Your task to perform on an android device: star an email in the gmail app Image 0: 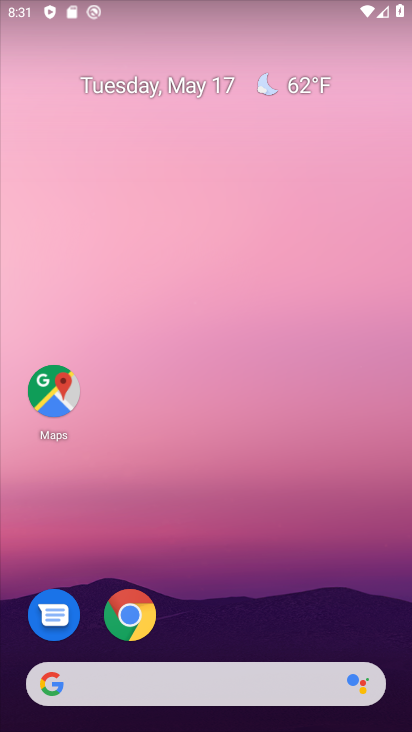
Step 0: drag from (239, 537) to (203, 114)
Your task to perform on an android device: star an email in the gmail app Image 1: 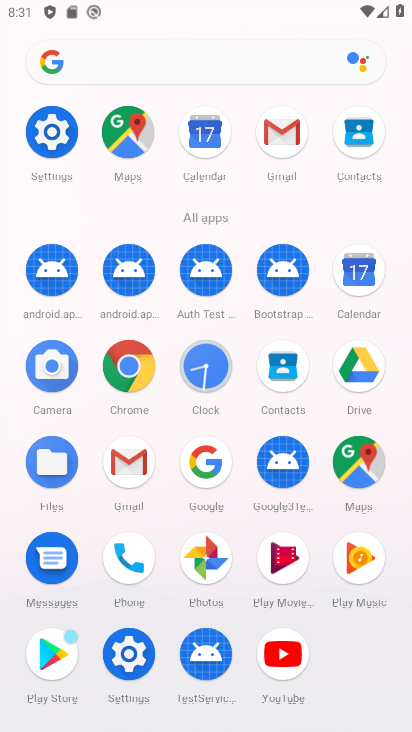
Step 1: click (122, 458)
Your task to perform on an android device: star an email in the gmail app Image 2: 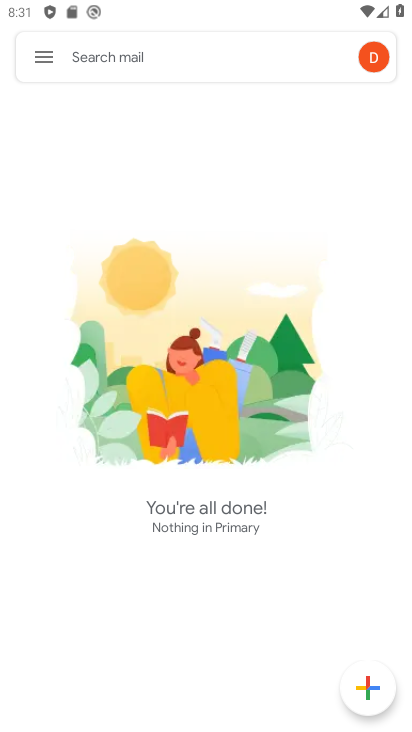
Step 2: task complete